Your task to perform on an android device: Turn off the flashlight Image 0: 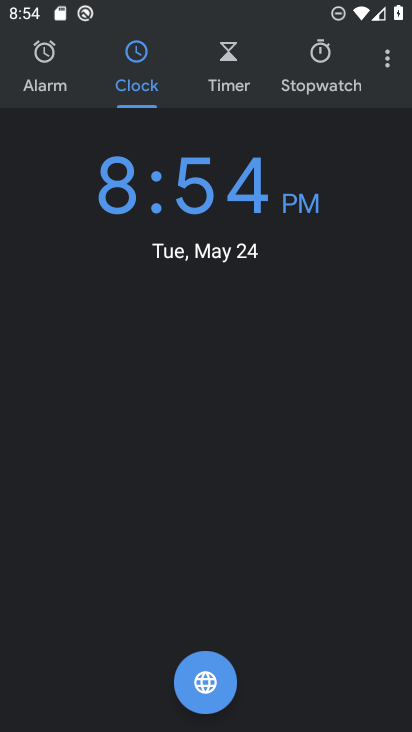
Step 0: press home button
Your task to perform on an android device: Turn off the flashlight Image 1: 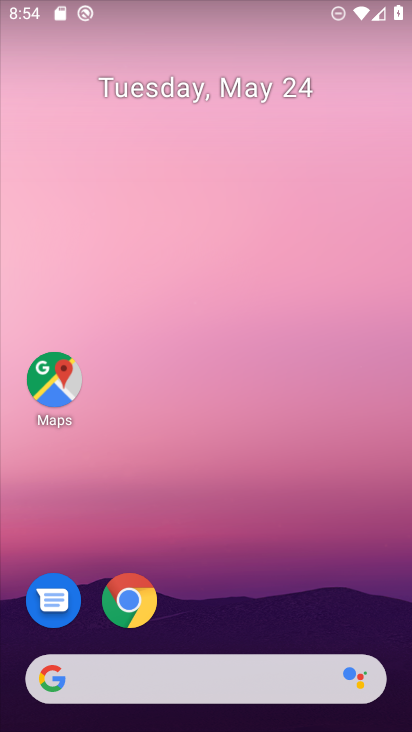
Step 1: drag from (186, 633) to (332, 15)
Your task to perform on an android device: Turn off the flashlight Image 2: 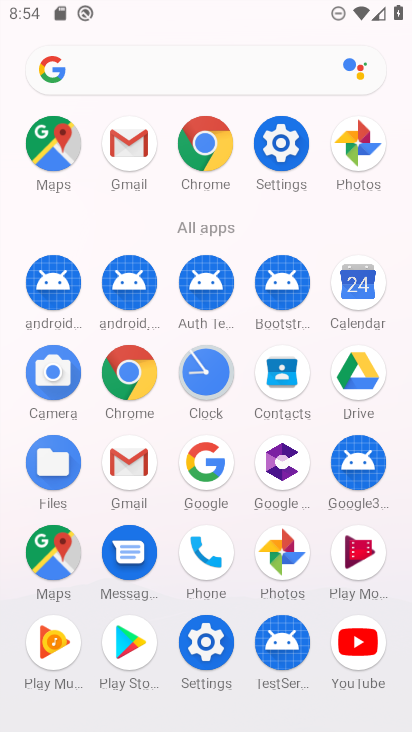
Step 2: click (282, 149)
Your task to perform on an android device: Turn off the flashlight Image 3: 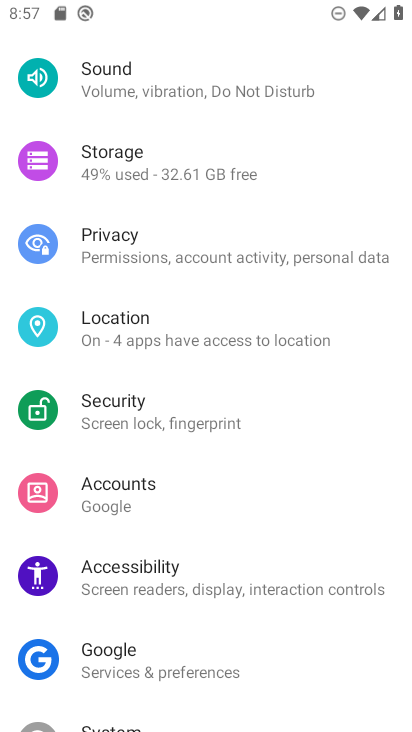
Step 3: task complete